Your task to perform on an android device: snooze an email in the gmail app Image 0: 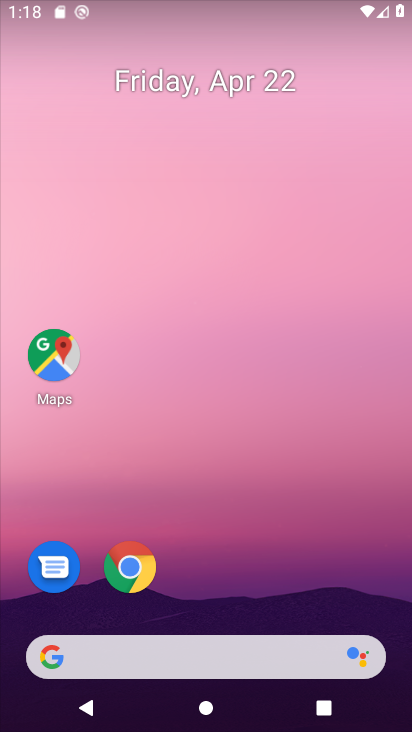
Step 0: drag from (235, 338) to (242, 142)
Your task to perform on an android device: snooze an email in the gmail app Image 1: 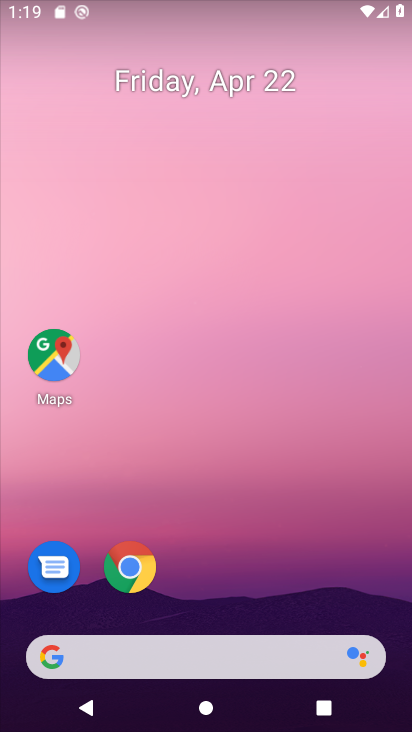
Step 1: drag from (250, 498) to (297, 39)
Your task to perform on an android device: snooze an email in the gmail app Image 2: 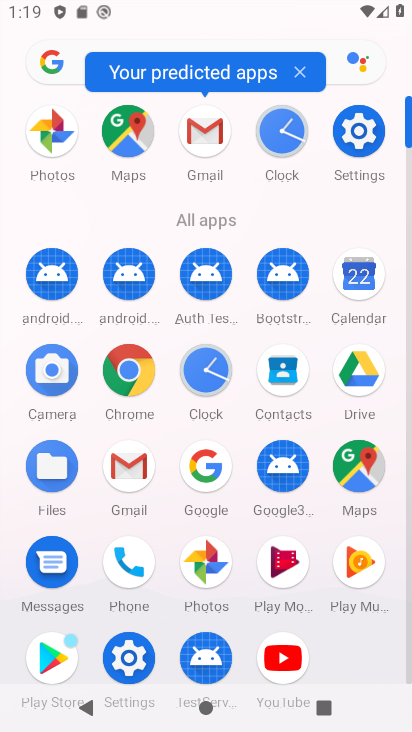
Step 2: click (205, 147)
Your task to perform on an android device: snooze an email in the gmail app Image 3: 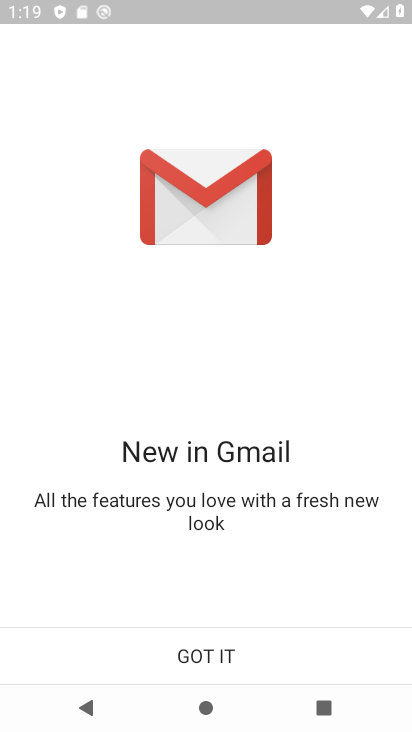
Step 3: click (283, 658)
Your task to perform on an android device: snooze an email in the gmail app Image 4: 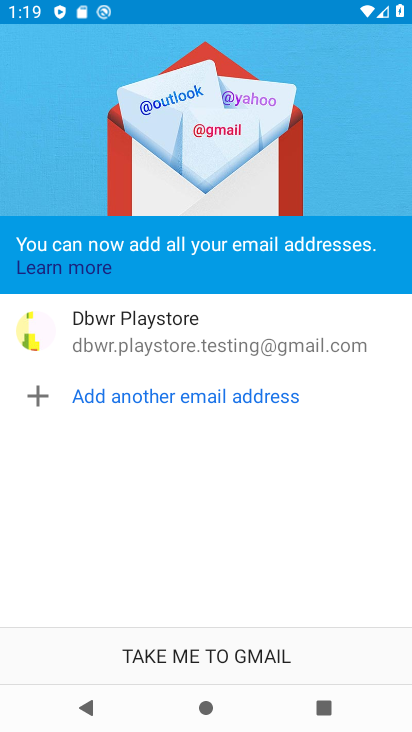
Step 4: click (283, 658)
Your task to perform on an android device: snooze an email in the gmail app Image 5: 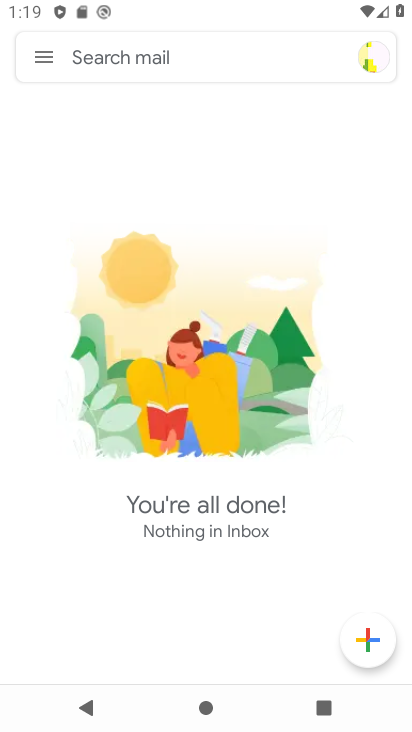
Step 5: click (46, 60)
Your task to perform on an android device: snooze an email in the gmail app Image 6: 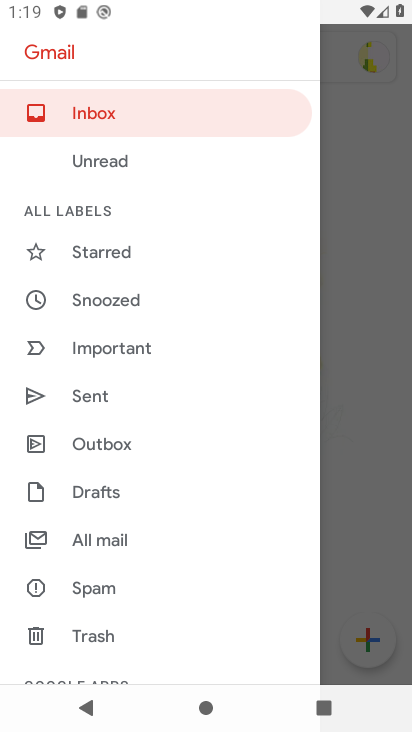
Step 6: click (101, 549)
Your task to perform on an android device: snooze an email in the gmail app Image 7: 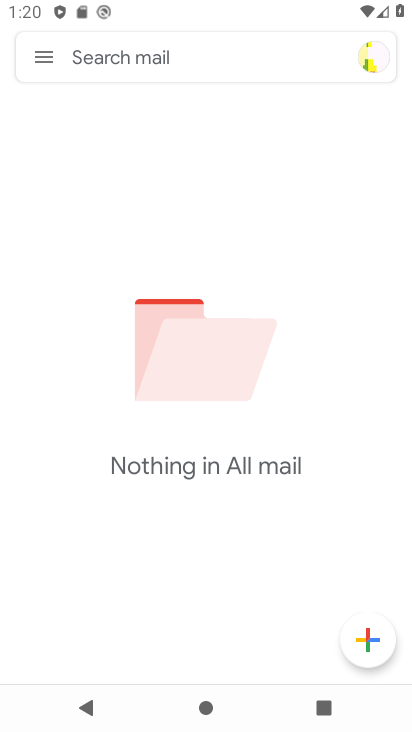
Step 7: task complete